Your task to perform on an android device: search for starred emails in the gmail app Image 0: 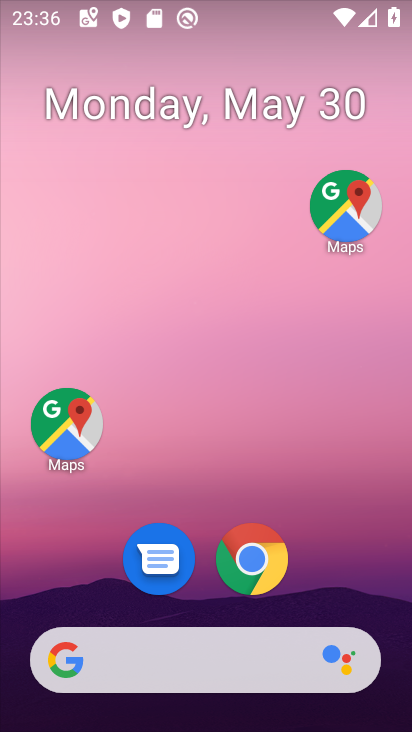
Step 0: drag from (342, 515) to (239, 36)
Your task to perform on an android device: search for starred emails in the gmail app Image 1: 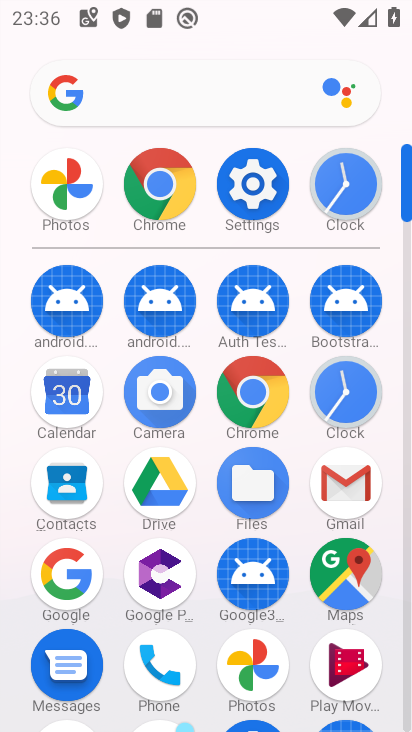
Step 1: click (340, 500)
Your task to perform on an android device: search for starred emails in the gmail app Image 2: 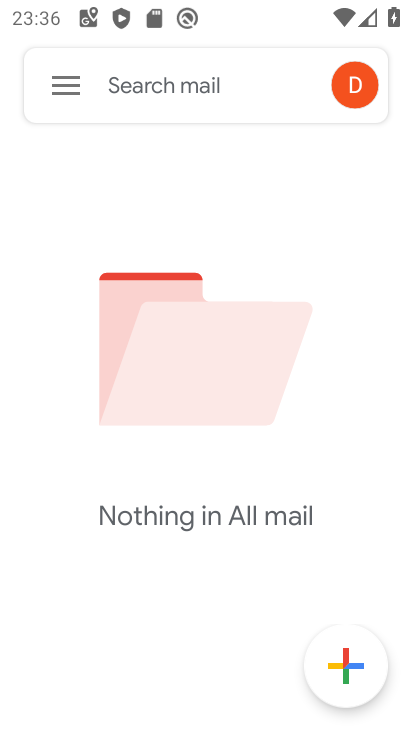
Step 2: click (54, 88)
Your task to perform on an android device: search for starred emails in the gmail app Image 3: 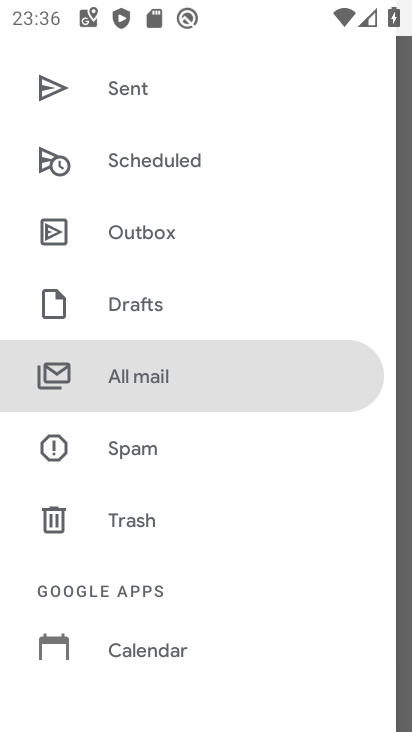
Step 3: drag from (120, 269) to (118, 544)
Your task to perform on an android device: search for starred emails in the gmail app Image 4: 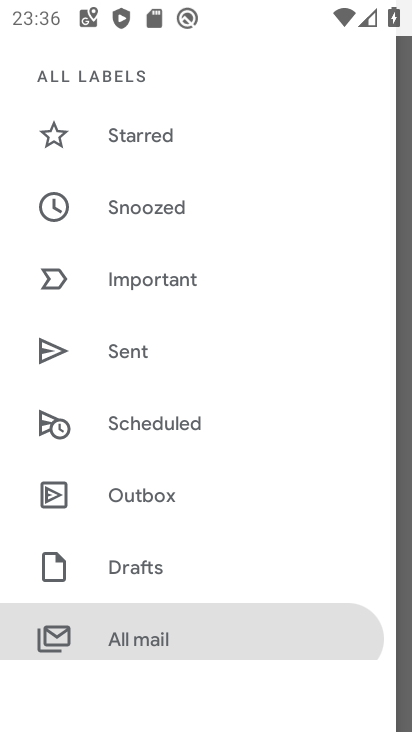
Step 4: click (150, 141)
Your task to perform on an android device: search for starred emails in the gmail app Image 5: 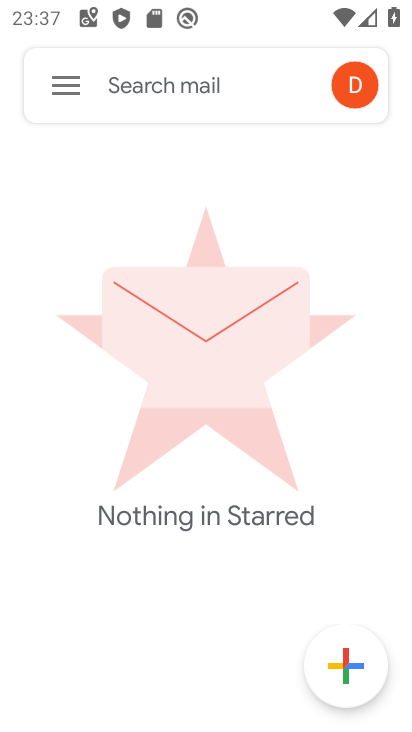
Step 5: task complete